Your task to perform on an android device: turn off location history Image 0: 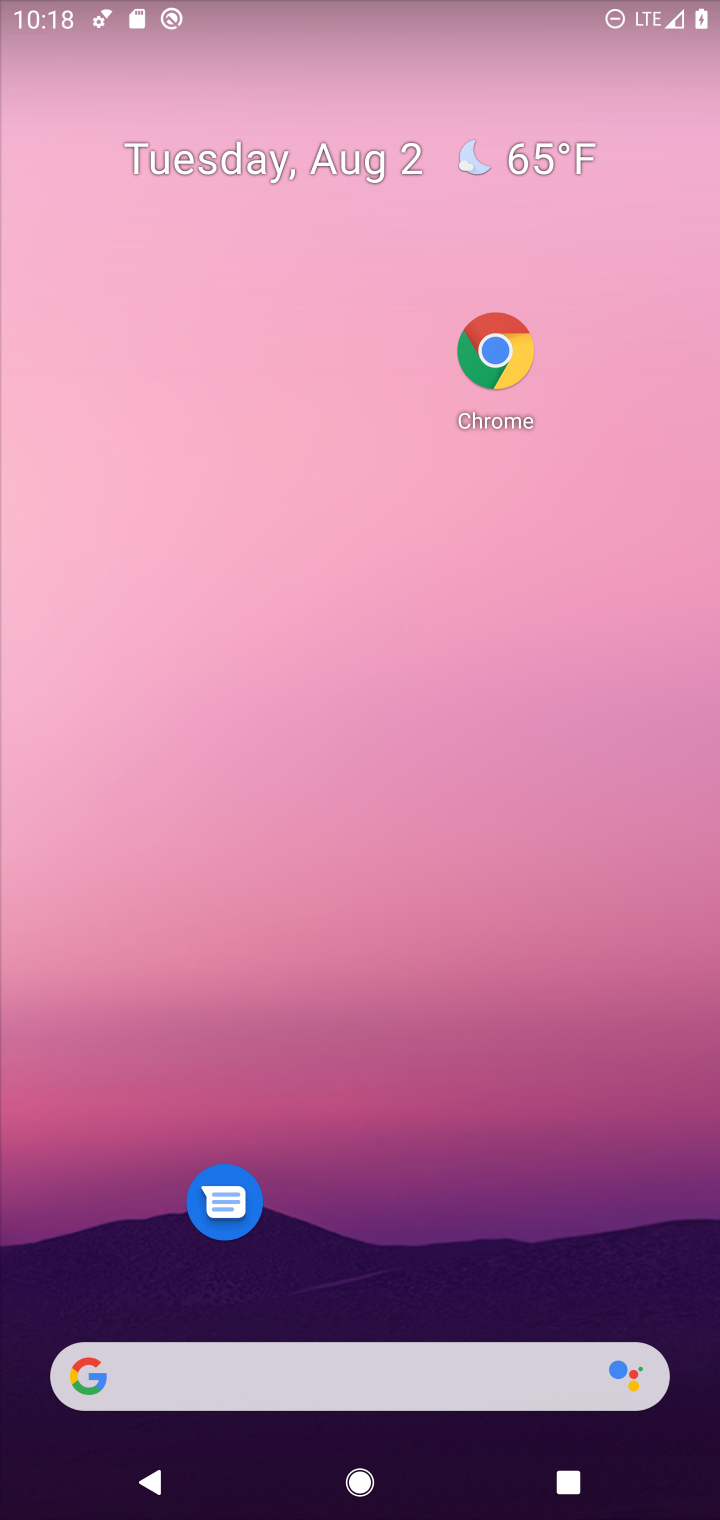
Step 0: drag from (403, 760) to (410, 56)
Your task to perform on an android device: turn off location history Image 1: 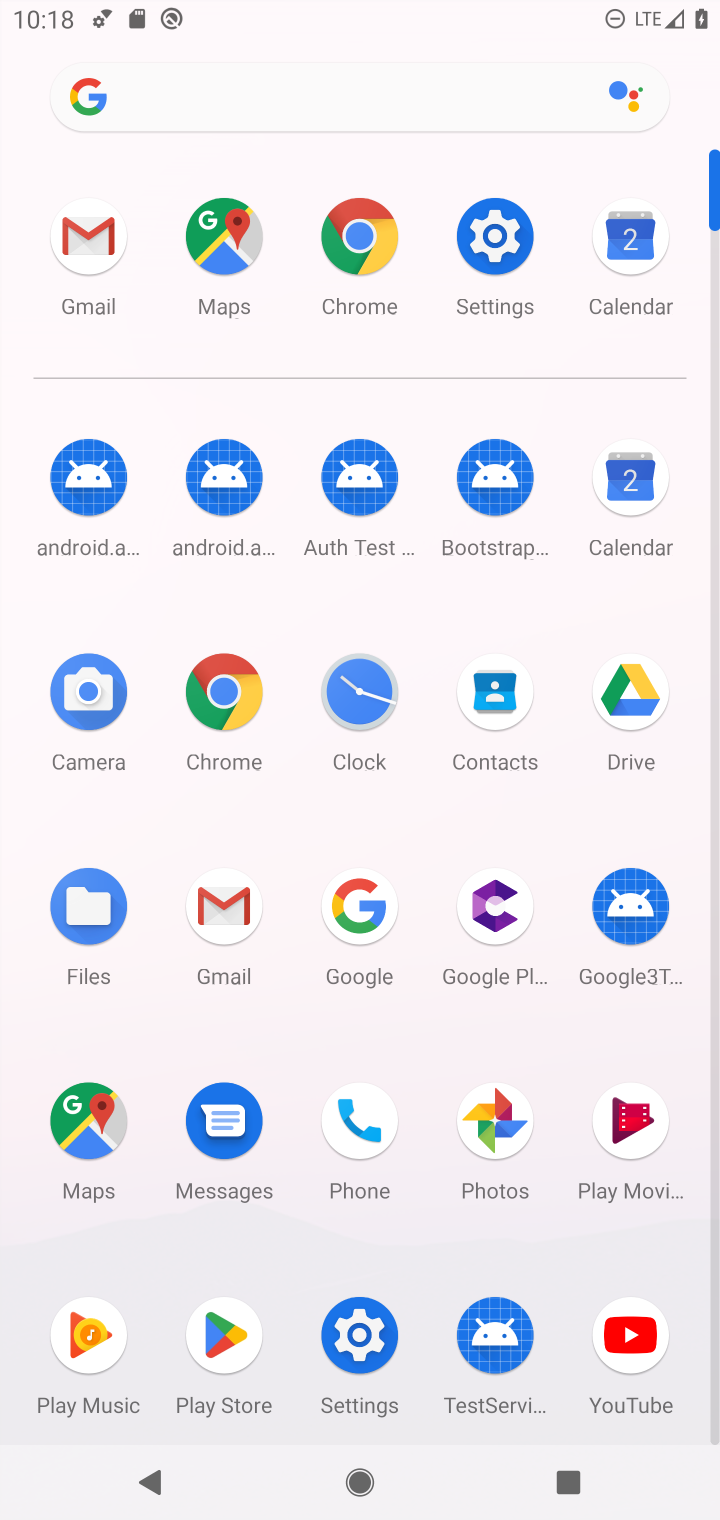
Step 1: click (223, 238)
Your task to perform on an android device: turn off location history Image 2: 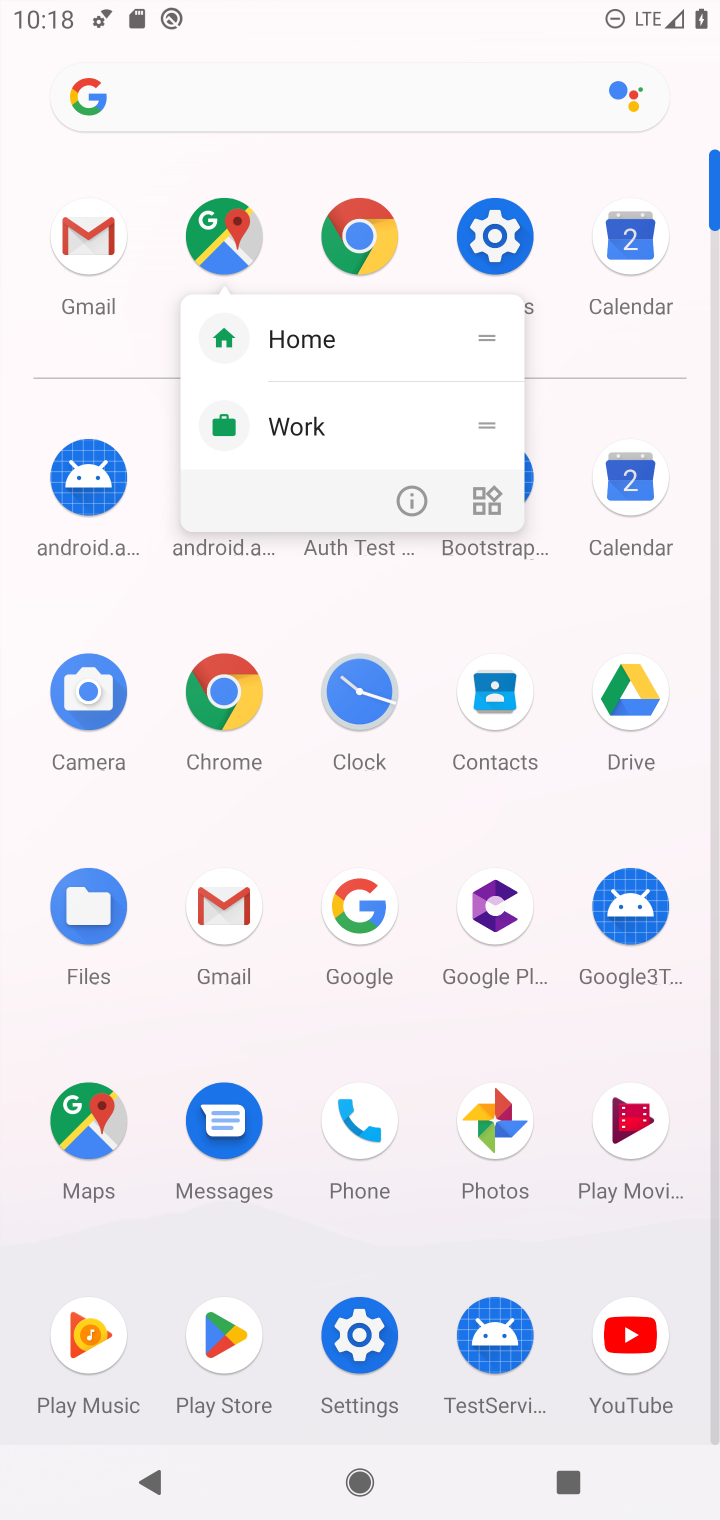
Step 2: click (223, 238)
Your task to perform on an android device: turn off location history Image 3: 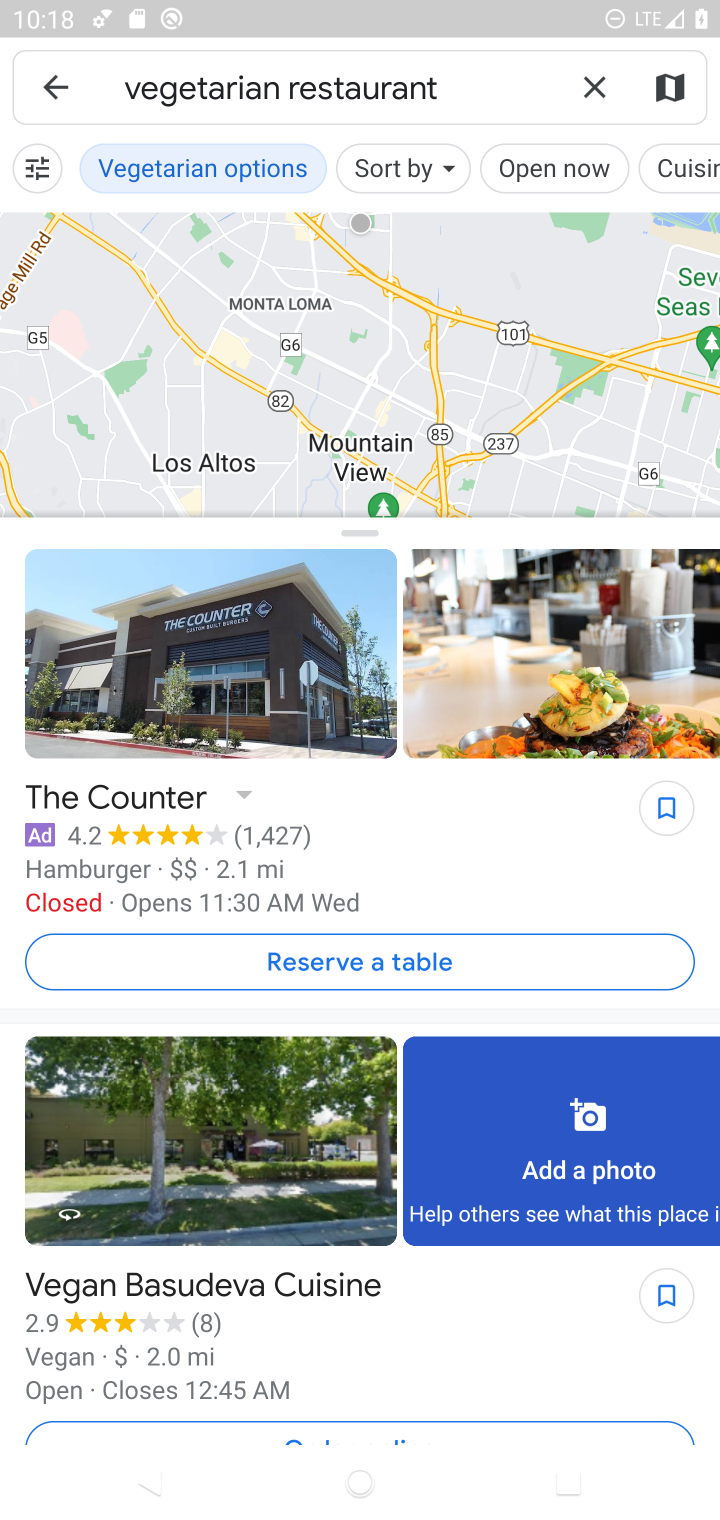
Step 3: click (587, 95)
Your task to perform on an android device: turn off location history Image 4: 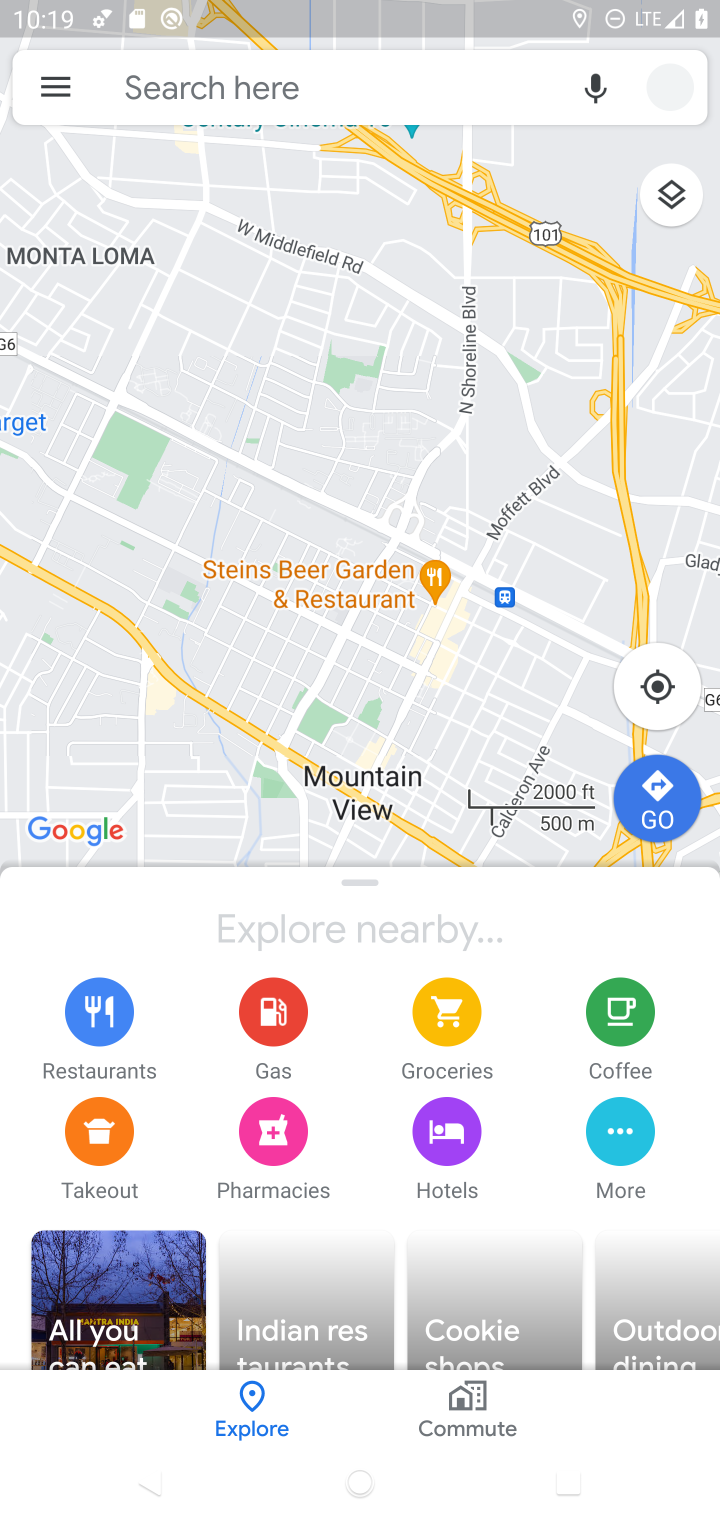
Step 4: click (64, 94)
Your task to perform on an android device: turn off location history Image 5: 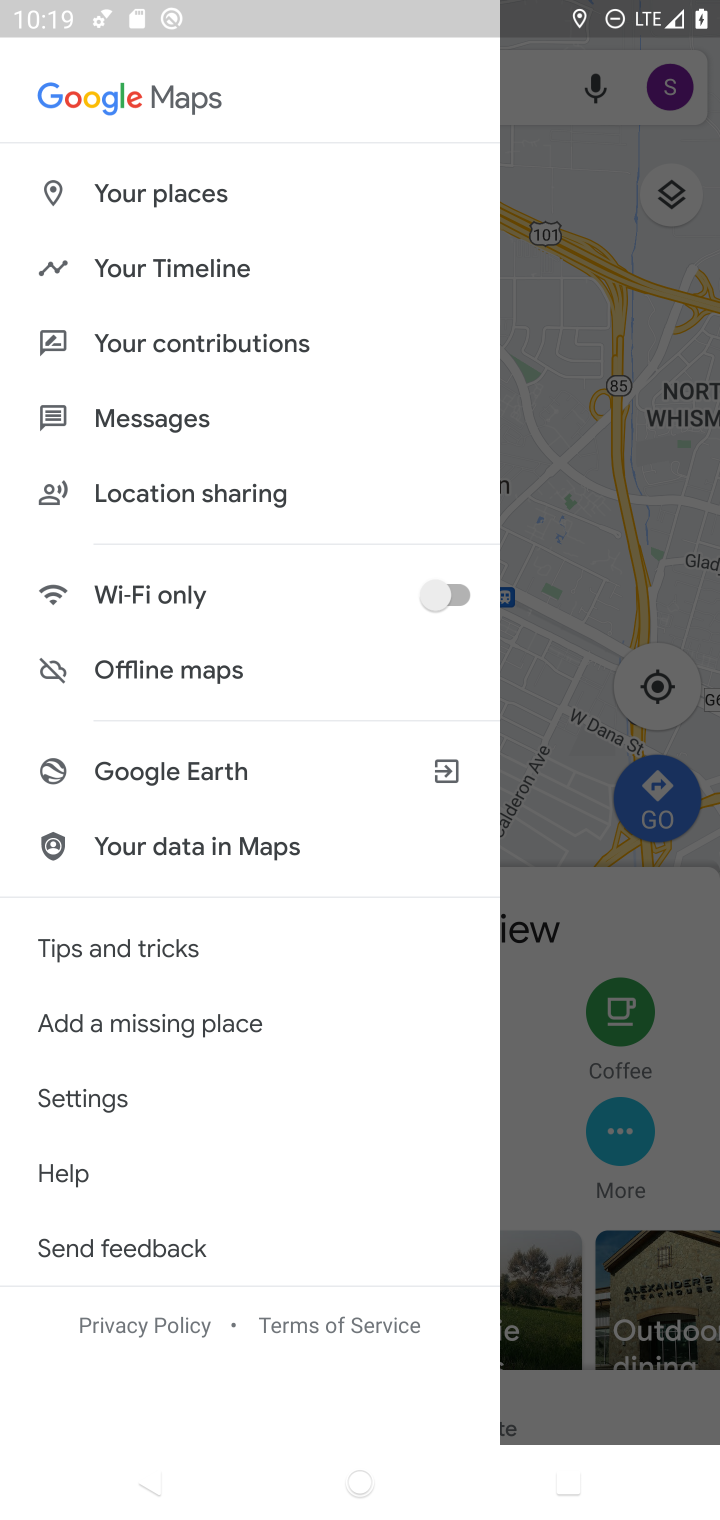
Step 5: click (127, 274)
Your task to perform on an android device: turn off location history Image 6: 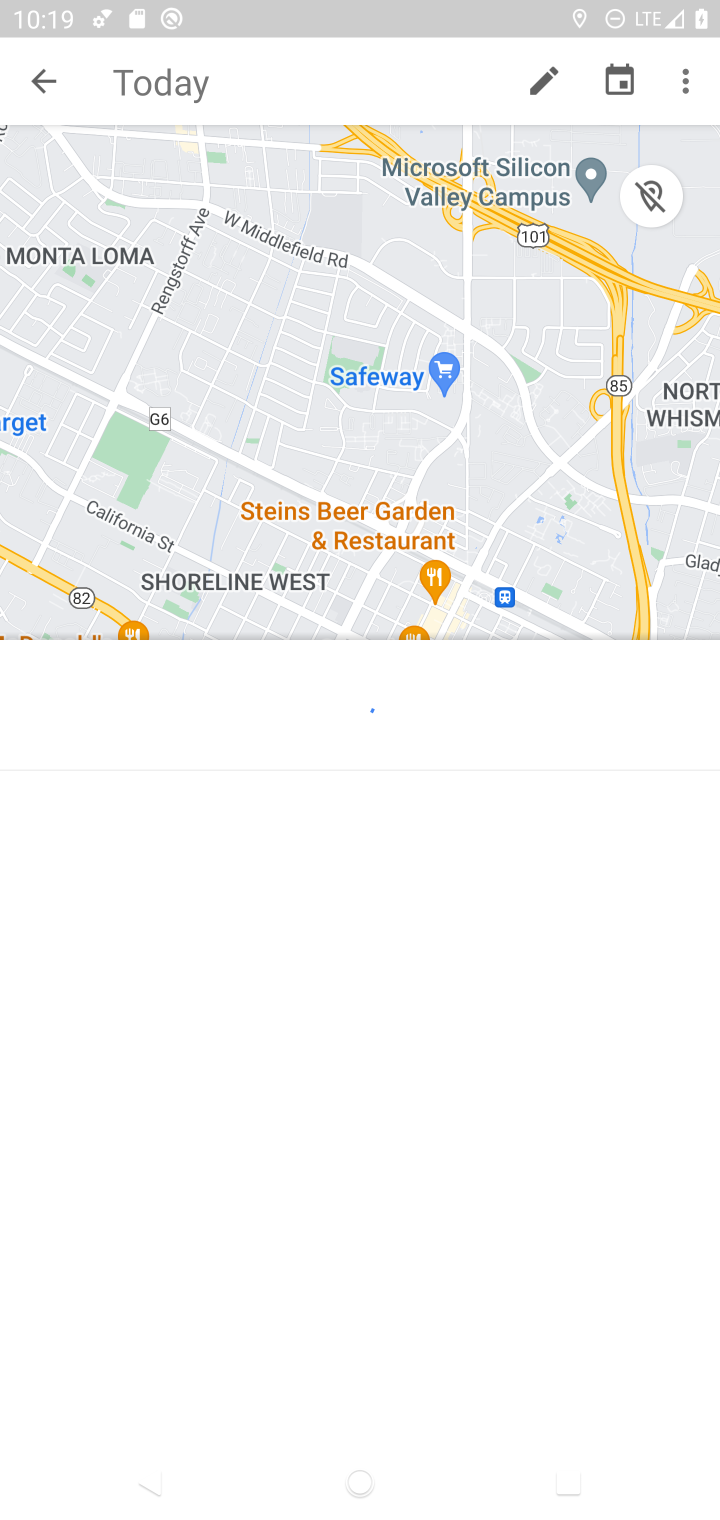
Step 6: click (685, 84)
Your task to perform on an android device: turn off location history Image 7: 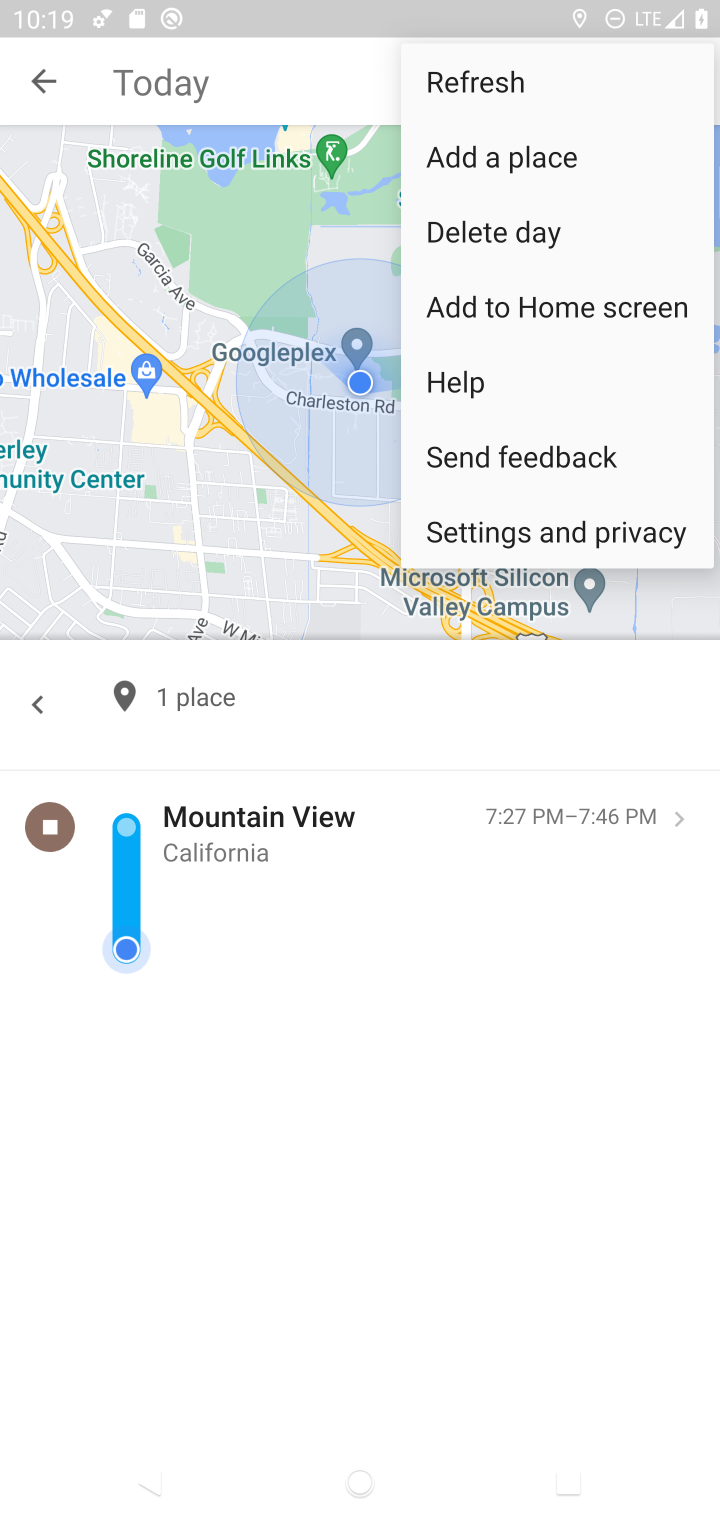
Step 7: click (505, 536)
Your task to perform on an android device: turn off location history Image 8: 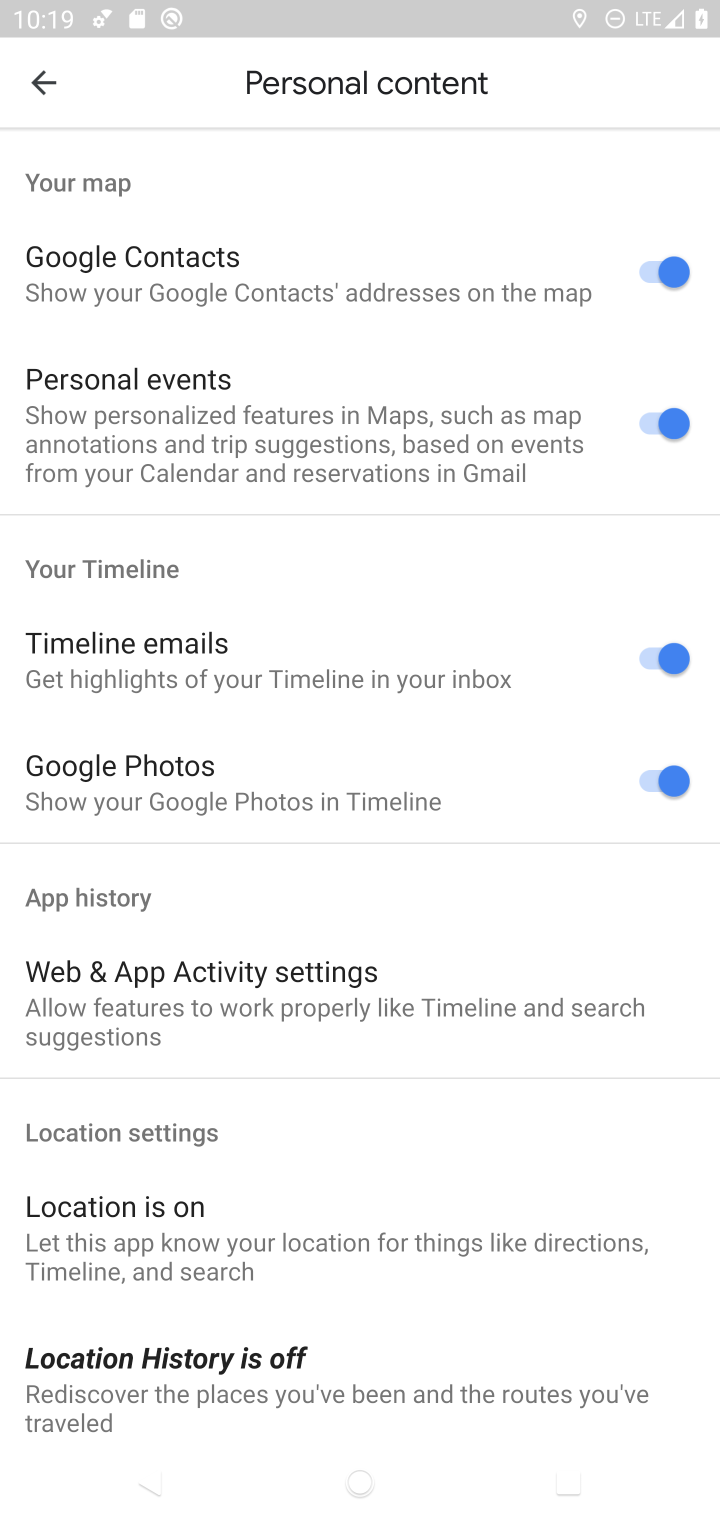
Step 8: click (197, 1383)
Your task to perform on an android device: turn off location history Image 9: 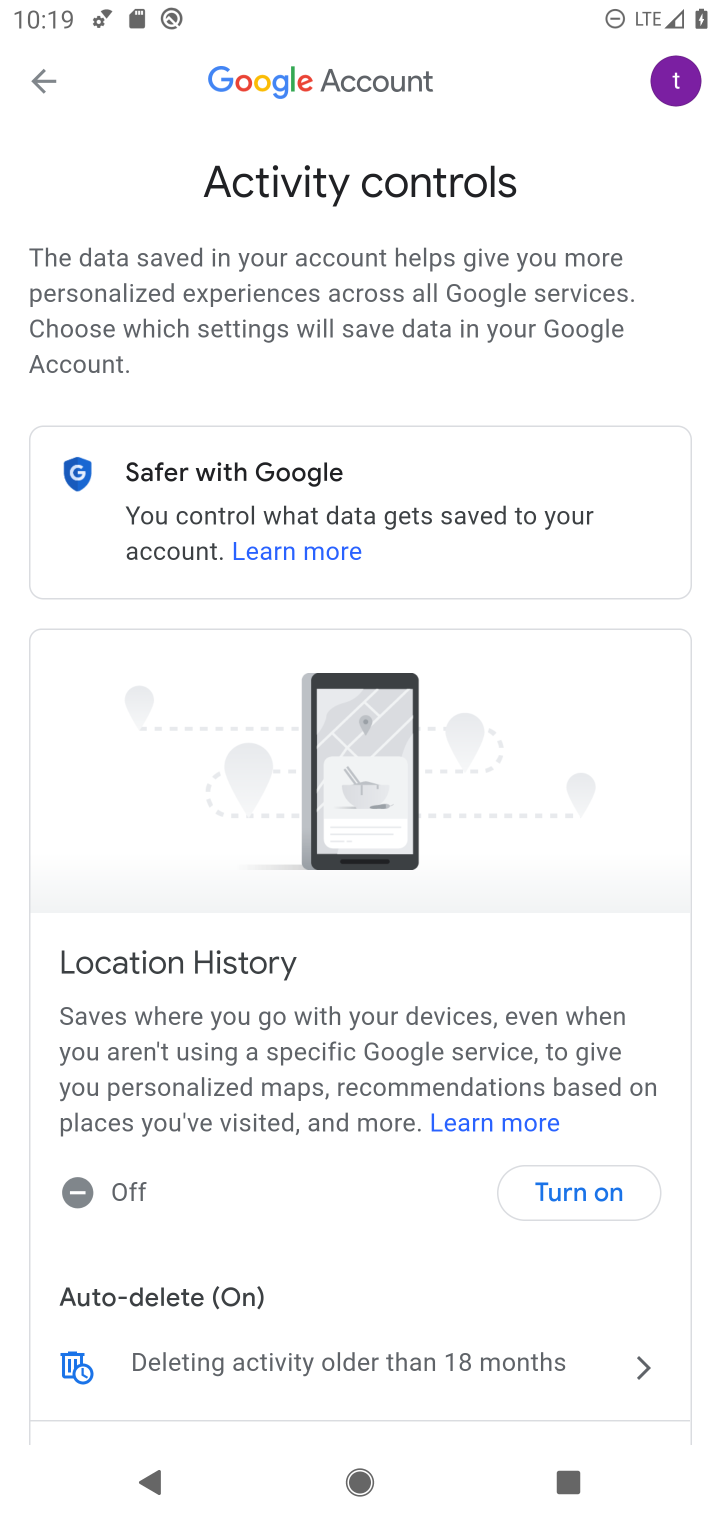
Step 9: task complete